Your task to perform on an android device: Go to Google Image 0: 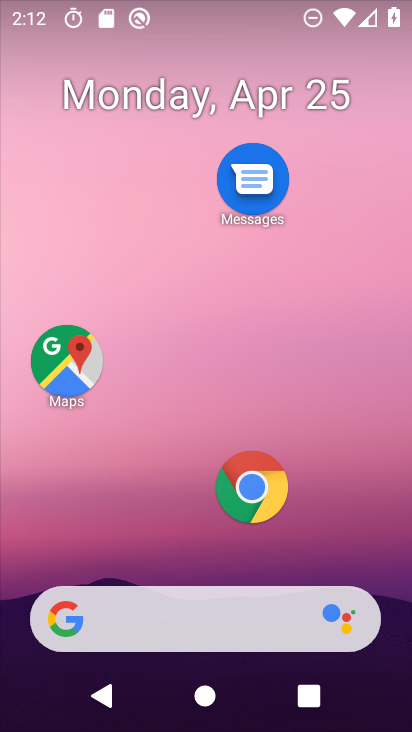
Step 0: click (260, 487)
Your task to perform on an android device: Go to Google Image 1: 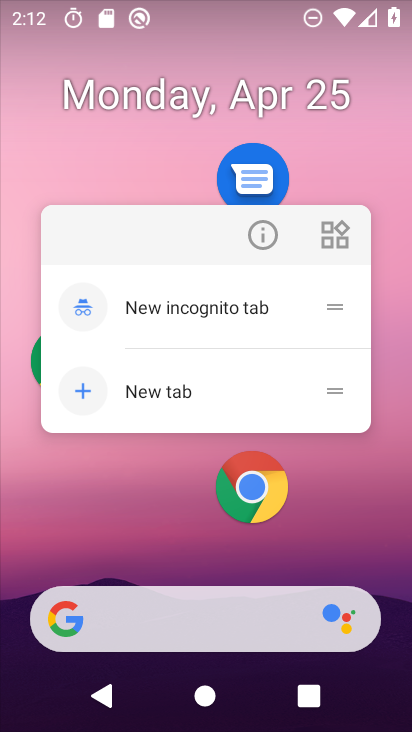
Step 1: click (260, 487)
Your task to perform on an android device: Go to Google Image 2: 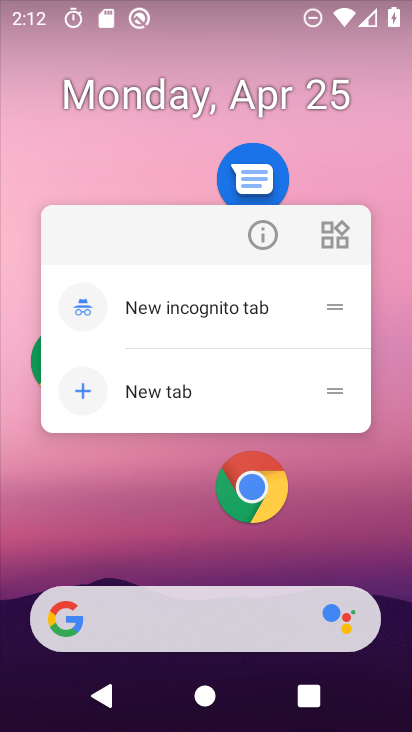
Step 2: click (263, 500)
Your task to perform on an android device: Go to Google Image 3: 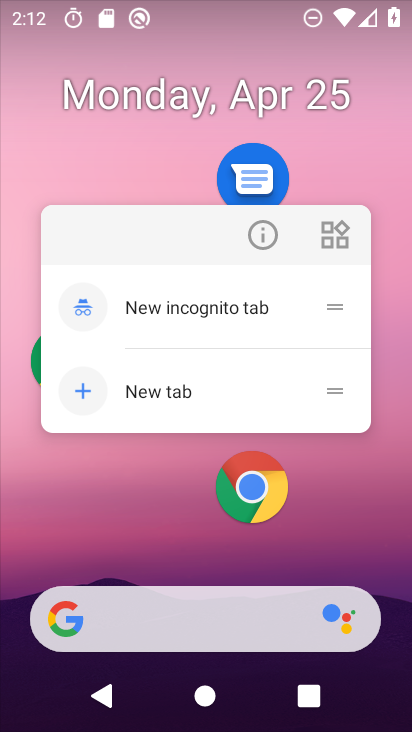
Step 3: click (343, 504)
Your task to perform on an android device: Go to Google Image 4: 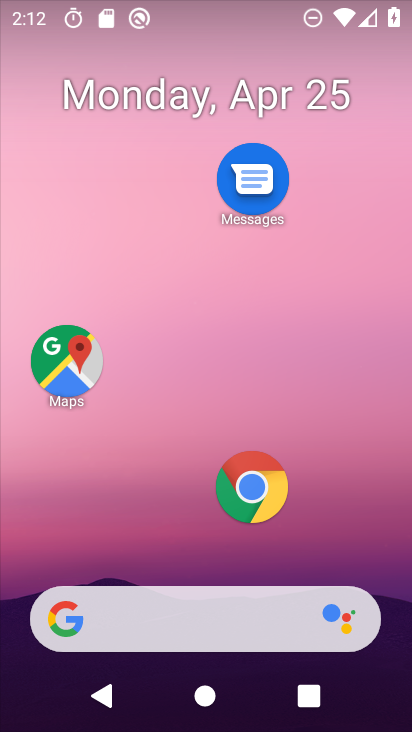
Step 4: drag from (365, 577) to (338, 63)
Your task to perform on an android device: Go to Google Image 5: 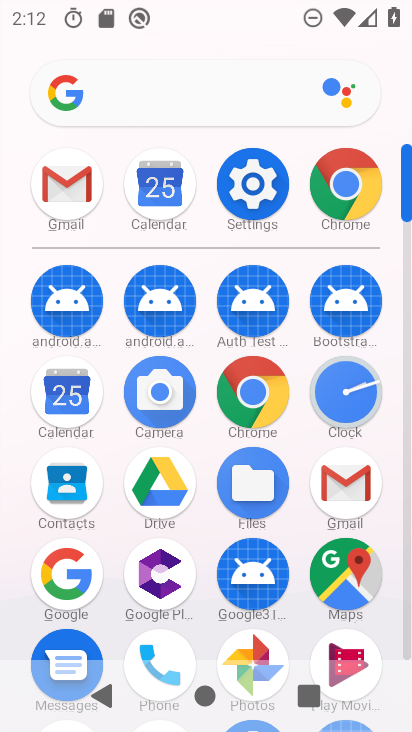
Step 5: click (270, 400)
Your task to perform on an android device: Go to Google Image 6: 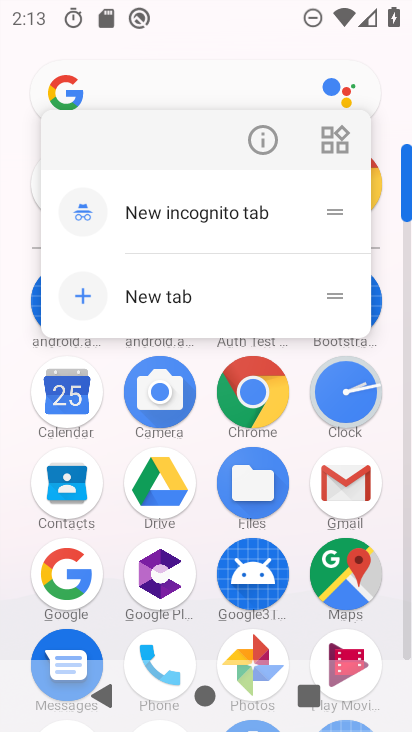
Step 6: click (245, 388)
Your task to perform on an android device: Go to Google Image 7: 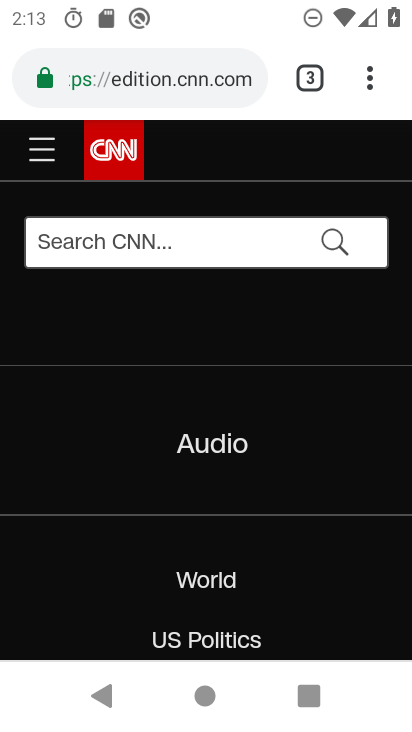
Step 7: task complete